Your task to perform on an android device: set default search engine in the chrome app Image 0: 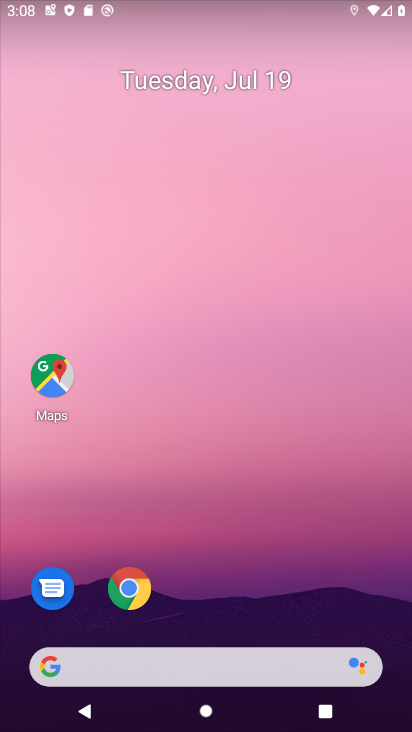
Step 0: click (130, 585)
Your task to perform on an android device: set default search engine in the chrome app Image 1: 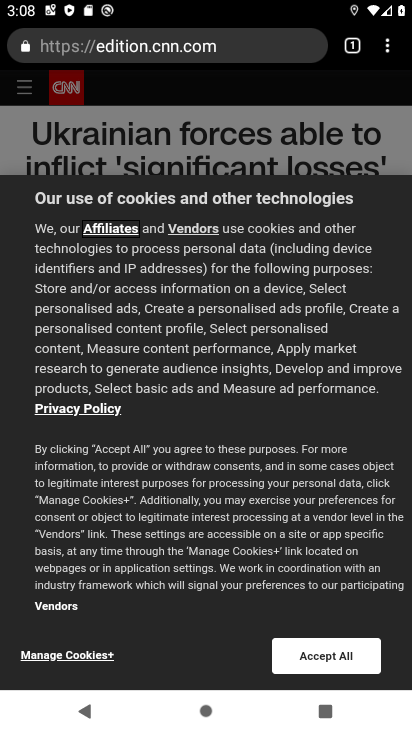
Step 1: click (389, 46)
Your task to perform on an android device: set default search engine in the chrome app Image 2: 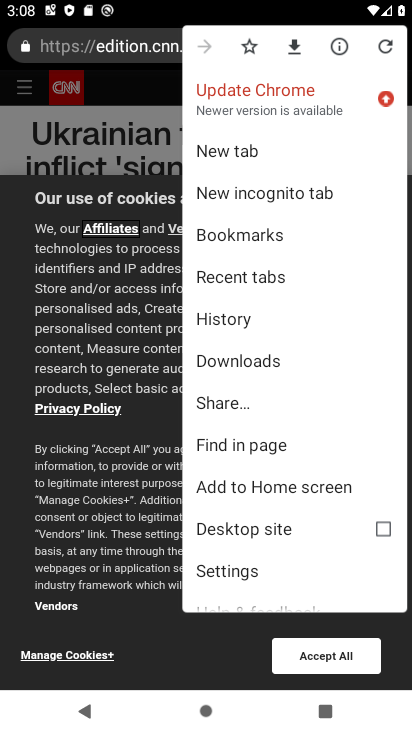
Step 2: click (232, 566)
Your task to perform on an android device: set default search engine in the chrome app Image 3: 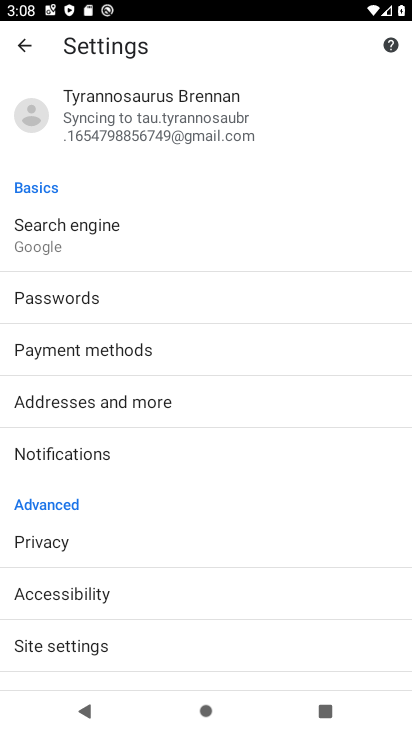
Step 3: click (82, 221)
Your task to perform on an android device: set default search engine in the chrome app Image 4: 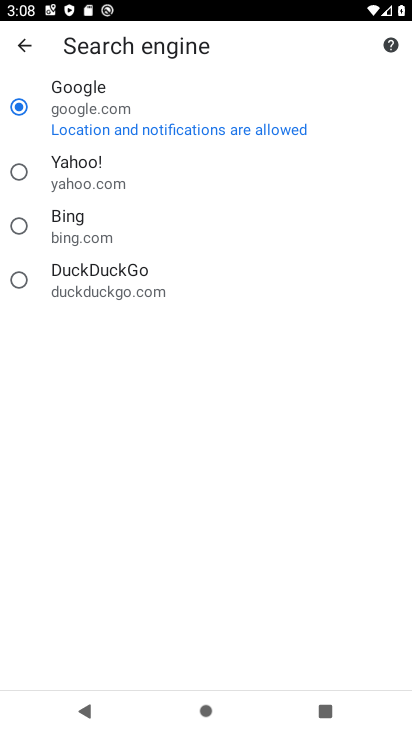
Step 4: task complete